Your task to perform on an android device: open app "VLC for Android" (install if not already installed), go to login, and select forgot password Image 0: 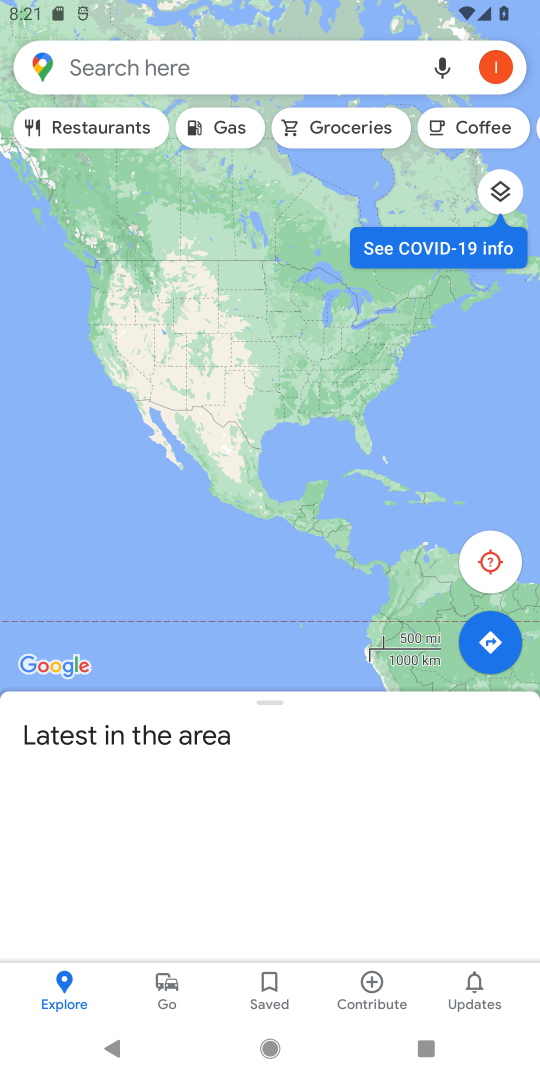
Step 0: press home button
Your task to perform on an android device: open app "VLC for Android" (install if not already installed), go to login, and select forgot password Image 1: 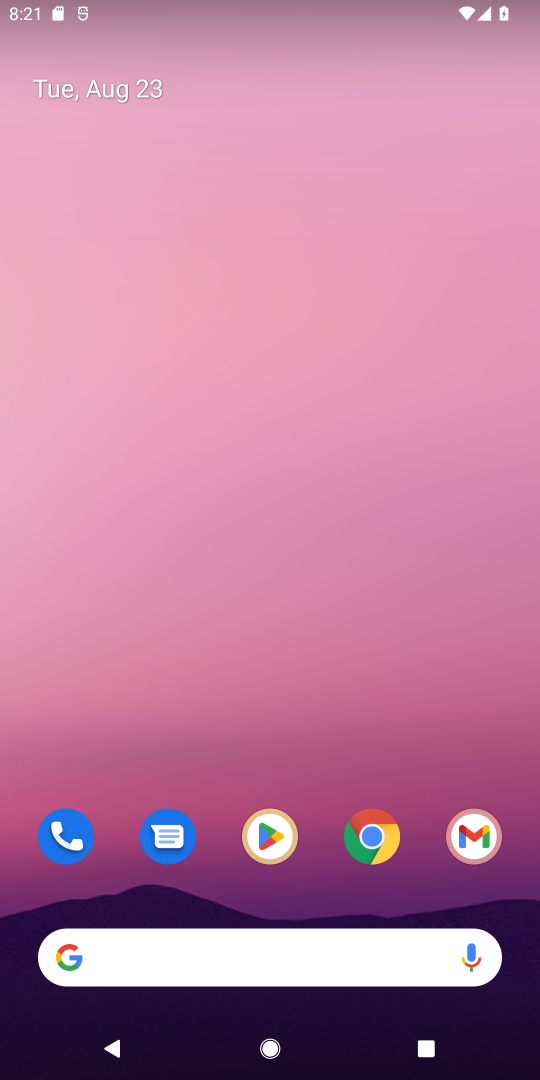
Step 1: click (269, 829)
Your task to perform on an android device: open app "VLC for Android" (install if not already installed), go to login, and select forgot password Image 2: 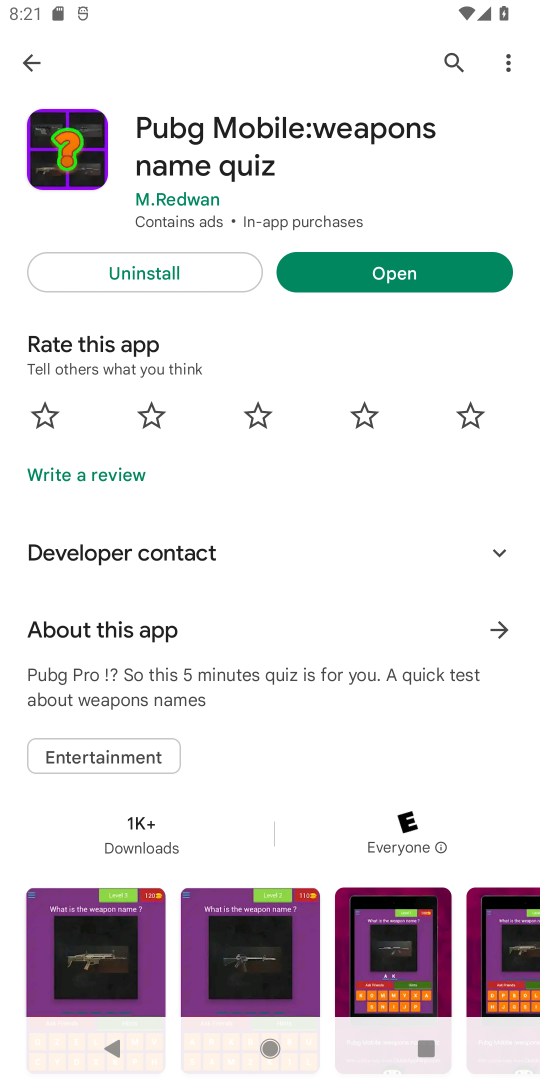
Step 2: click (453, 56)
Your task to perform on an android device: open app "VLC for Android" (install if not already installed), go to login, and select forgot password Image 3: 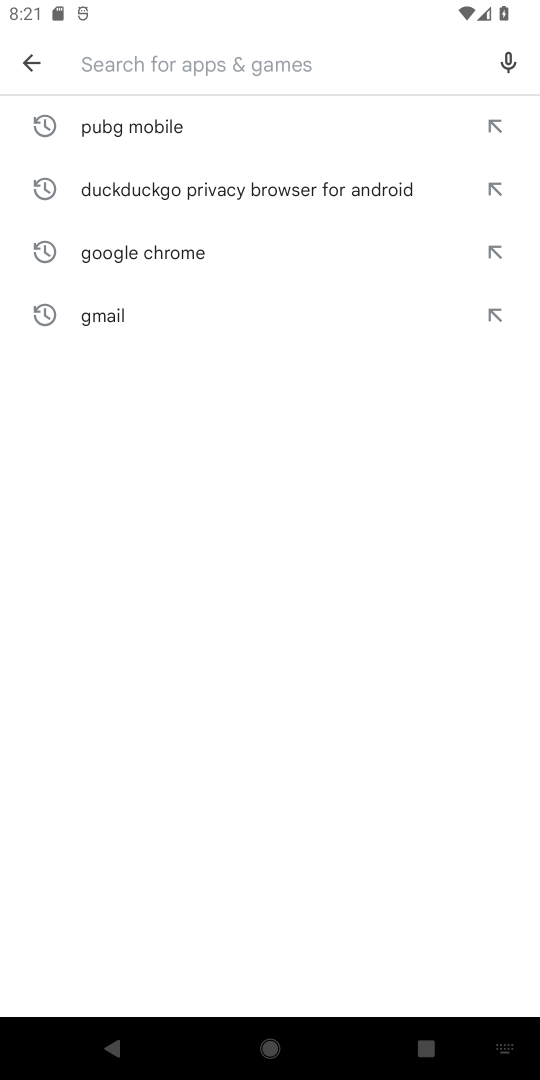
Step 3: type "VLC for Android"
Your task to perform on an android device: open app "VLC for Android" (install if not already installed), go to login, and select forgot password Image 4: 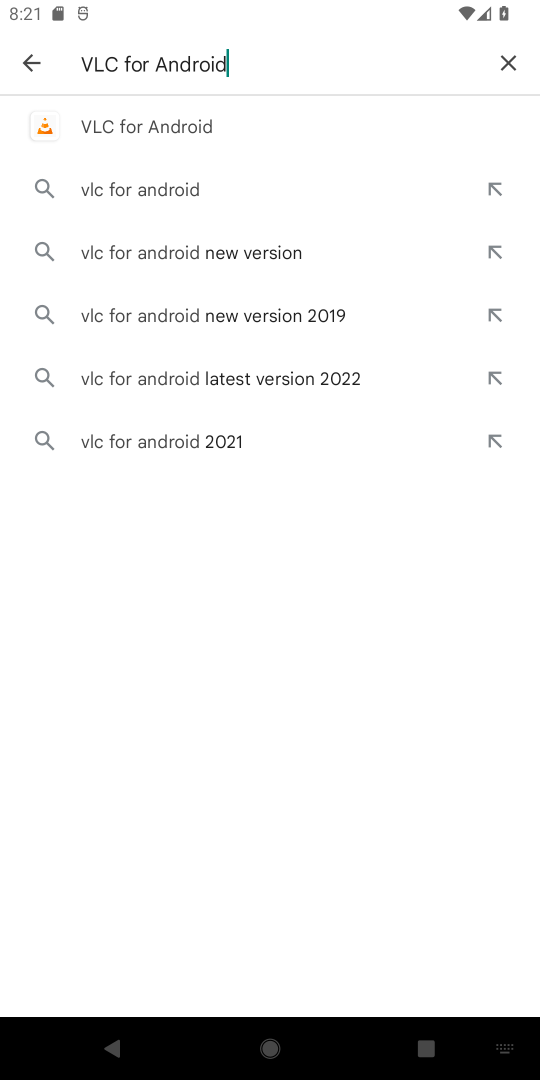
Step 4: click (198, 124)
Your task to perform on an android device: open app "VLC for Android" (install if not already installed), go to login, and select forgot password Image 5: 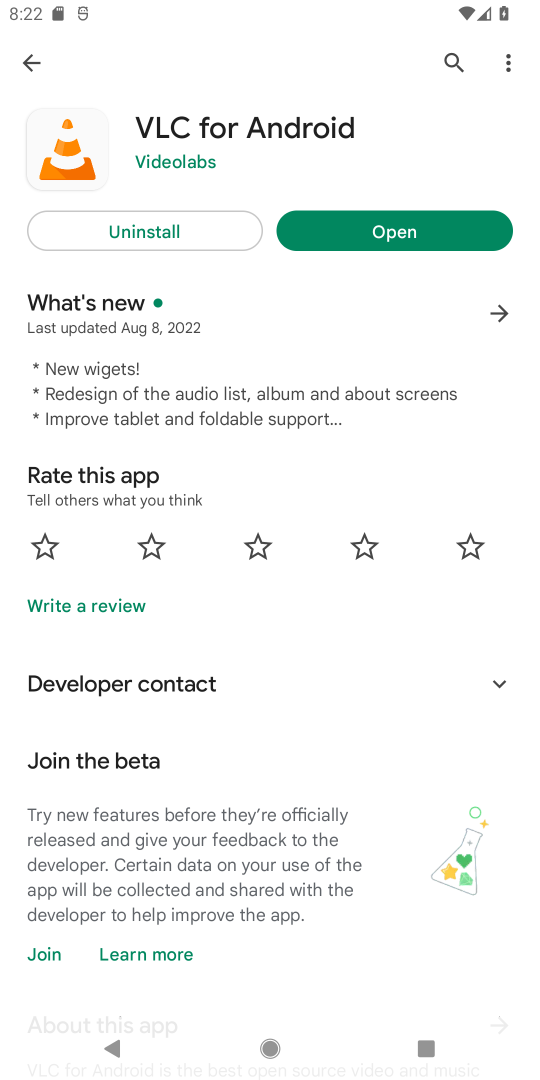
Step 5: click (392, 239)
Your task to perform on an android device: open app "VLC for Android" (install if not already installed), go to login, and select forgot password Image 6: 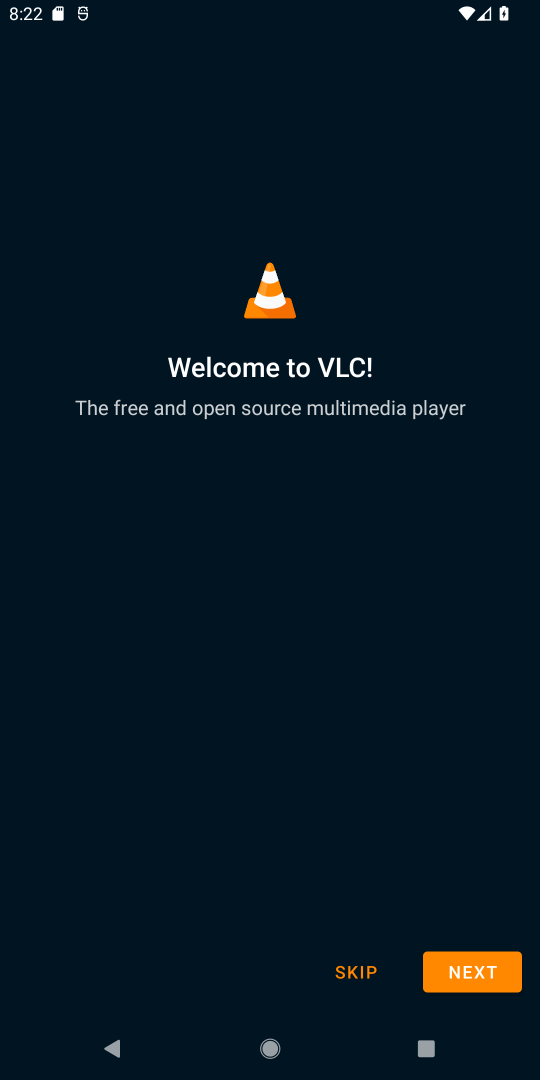
Step 6: click (489, 980)
Your task to perform on an android device: open app "VLC for Android" (install if not already installed), go to login, and select forgot password Image 7: 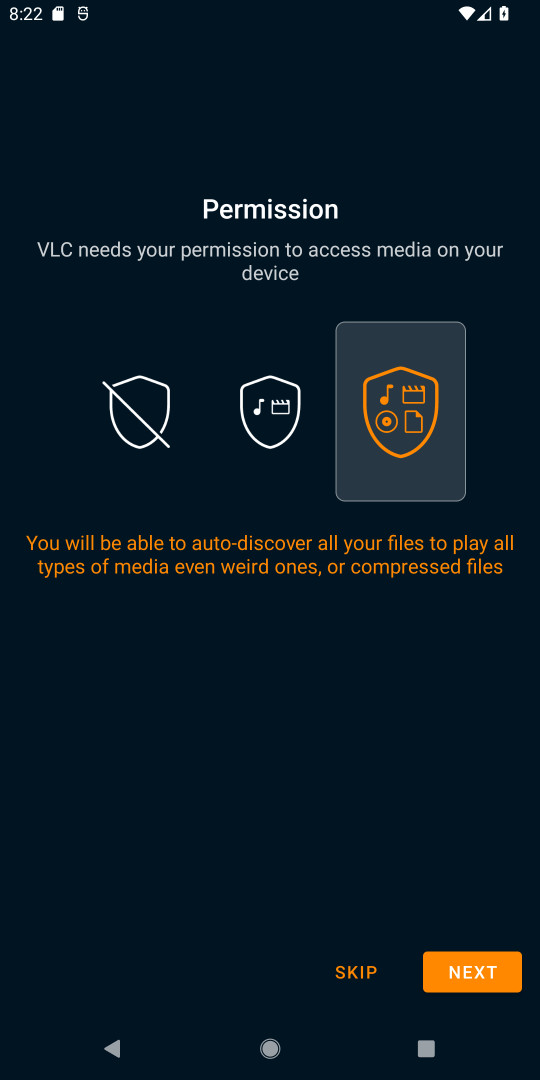
Step 7: click (489, 981)
Your task to perform on an android device: open app "VLC for Android" (install if not already installed), go to login, and select forgot password Image 8: 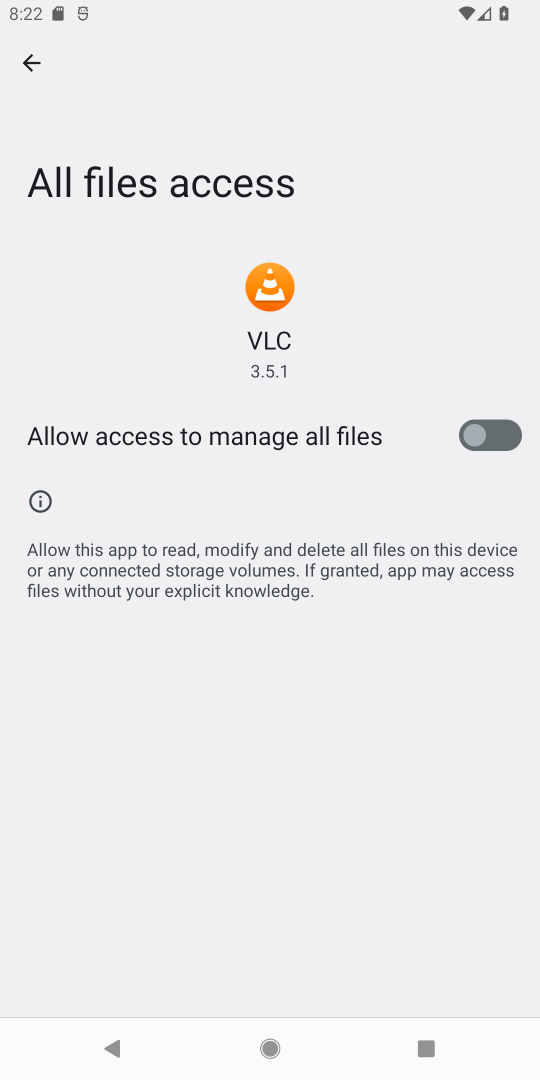
Step 8: task complete